Your task to perform on an android device: open chrome and create a bookmark for the current page Image 0: 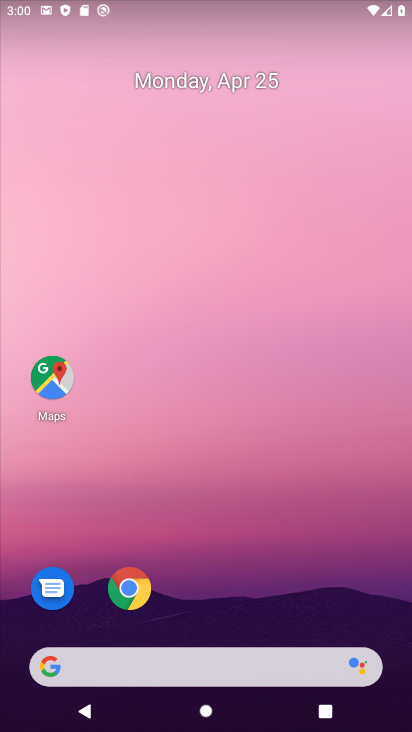
Step 0: click (132, 585)
Your task to perform on an android device: open chrome and create a bookmark for the current page Image 1: 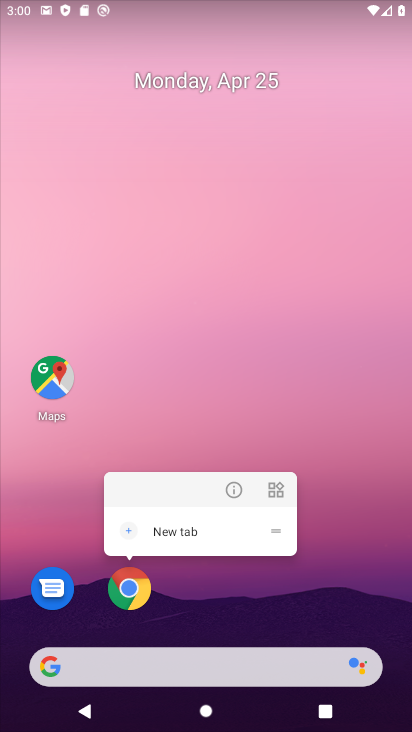
Step 1: click (136, 601)
Your task to perform on an android device: open chrome and create a bookmark for the current page Image 2: 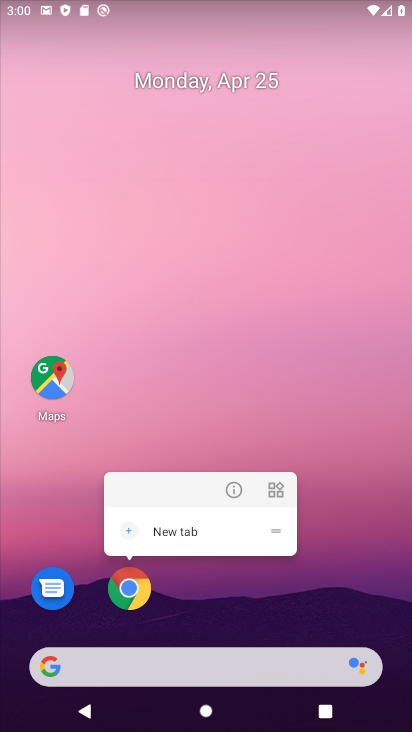
Step 2: click (135, 599)
Your task to perform on an android device: open chrome and create a bookmark for the current page Image 3: 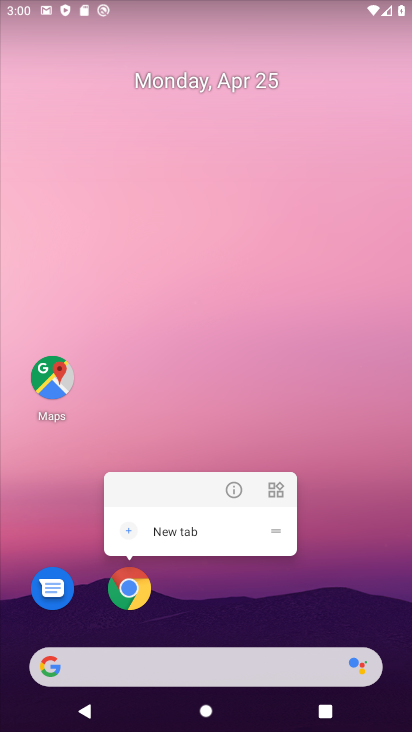
Step 3: click (134, 593)
Your task to perform on an android device: open chrome and create a bookmark for the current page Image 4: 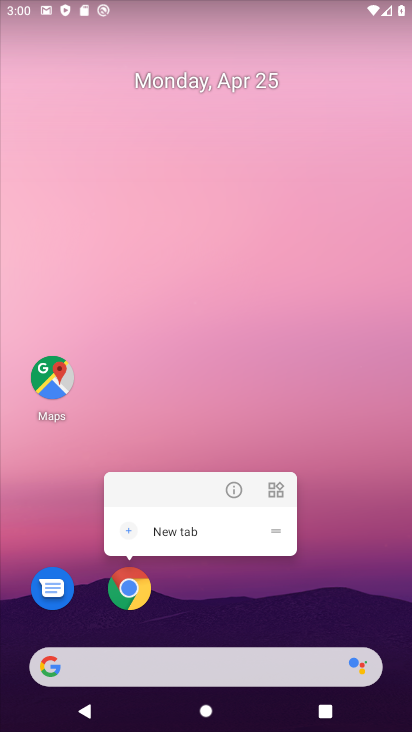
Step 4: click (117, 589)
Your task to perform on an android device: open chrome and create a bookmark for the current page Image 5: 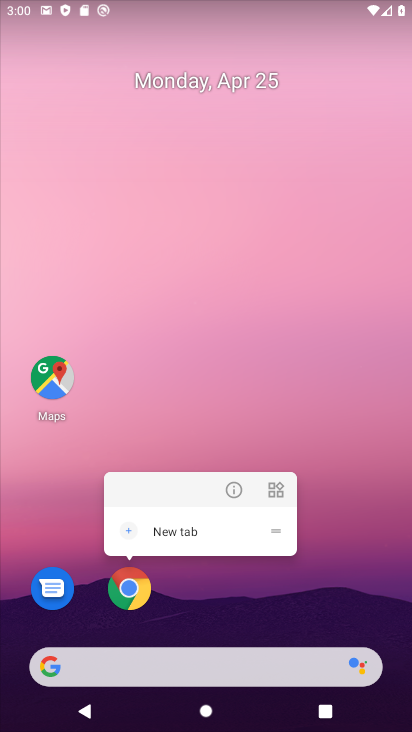
Step 5: click (137, 597)
Your task to perform on an android device: open chrome and create a bookmark for the current page Image 6: 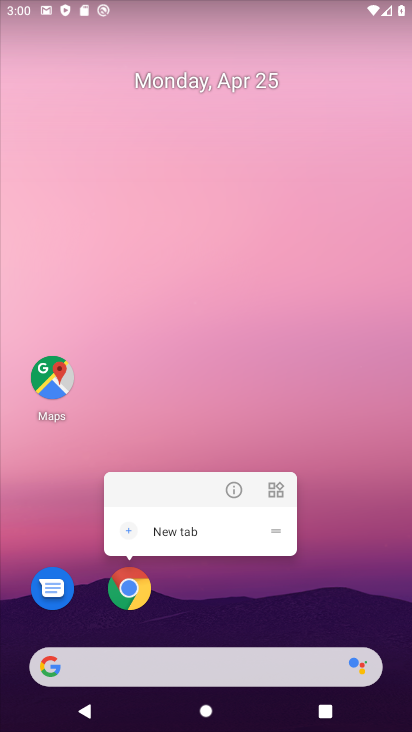
Step 6: click (137, 593)
Your task to perform on an android device: open chrome and create a bookmark for the current page Image 7: 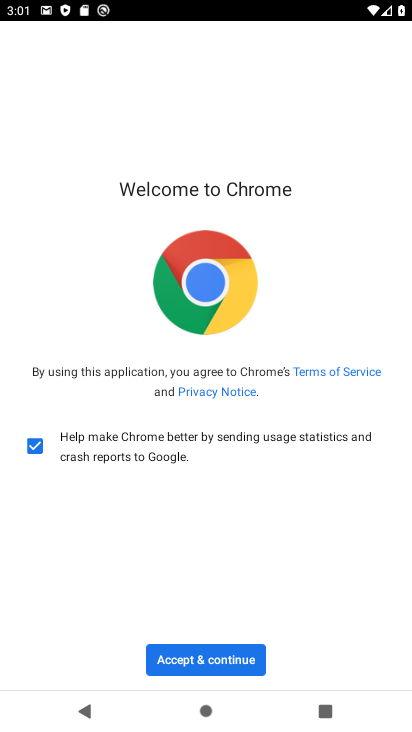
Step 7: click (246, 651)
Your task to perform on an android device: open chrome and create a bookmark for the current page Image 8: 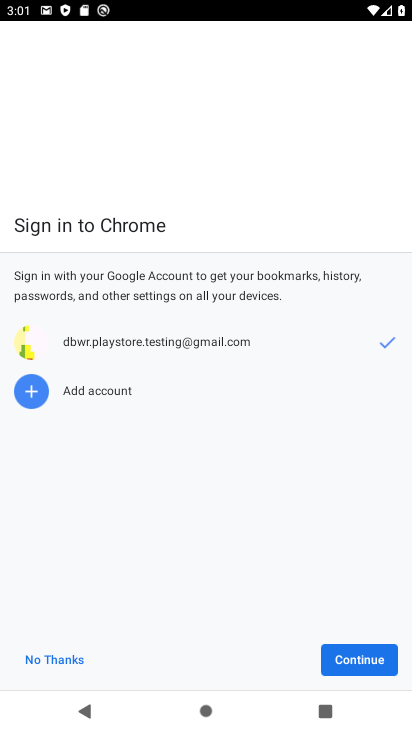
Step 8: click (356, 662)
Your task to perform on an android device: open chrome and create a bookmark for the current page Image 9: 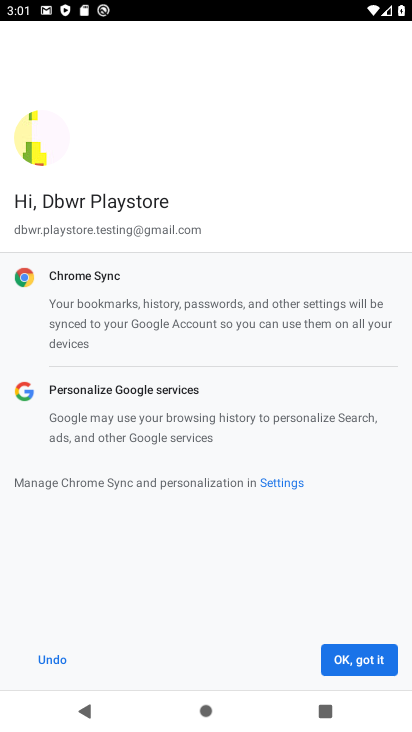
Step 9: click (356, 661)
Your task to perform on an android device: open chrome and create a bookmark for the current page Image 10: 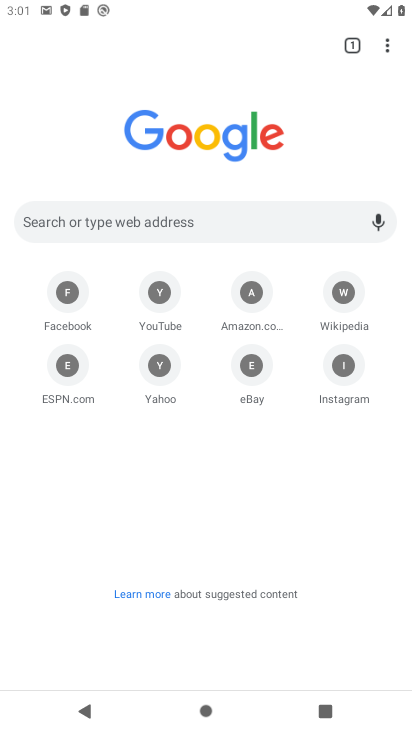
Step 10: task complete